Your task to perform on an android device: change alarm snooze length Image 0: 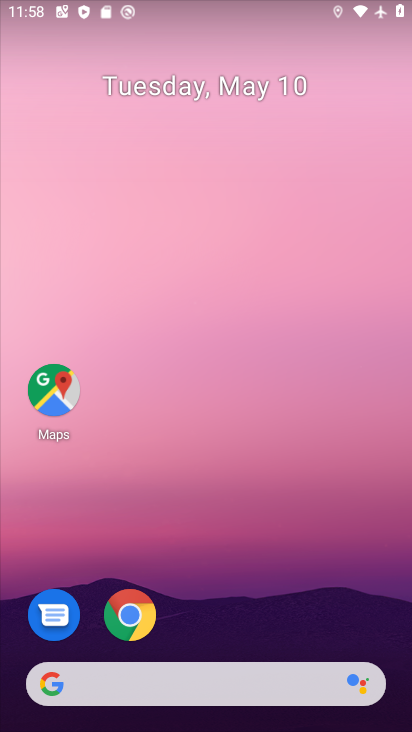
Step 0: drag from (229, 543) to (193, 11)
Your task to perform on an android device: change alarm snooze length Image 1: 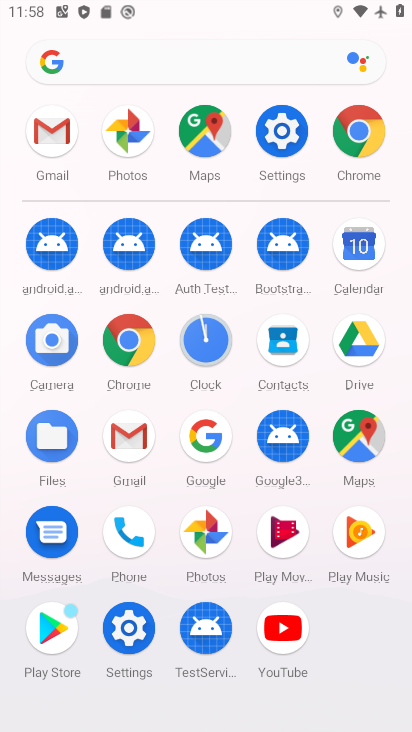
Step 1: drag from (6, 509) to (10, 307)
Your task to perform on an android device: change alarm snooze length Image 2: 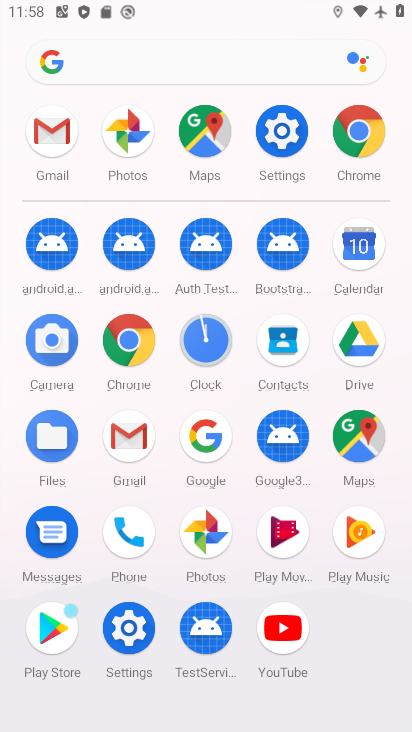
Step 2: click (206, 335)
Your task to perform on an android device: change alarm snooze length Image 3: 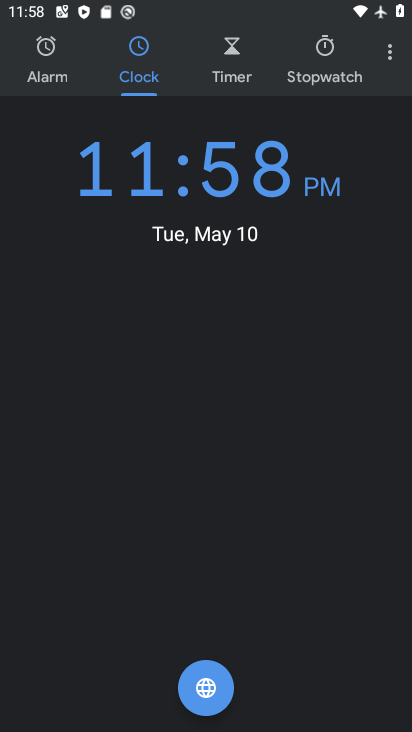
Step 3: drag from (391, 53) to (335, 109)
Your task to perform on an android device: change alarm snooze length Image 4: 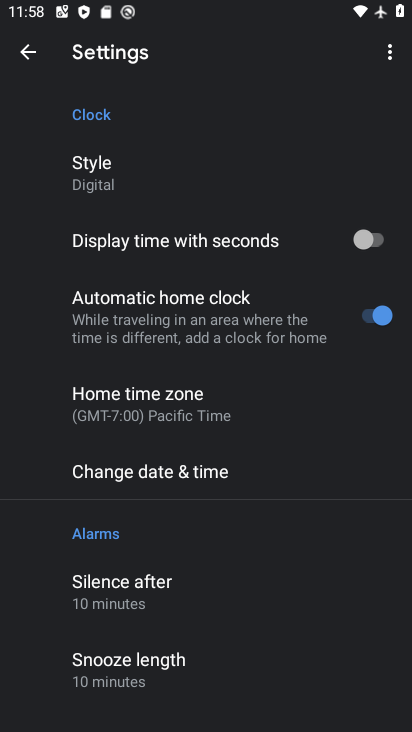
Step 4: drag from (250, 465) to (254, 241)
Your task to perform on an android device: change alarm snooze length Image 5: 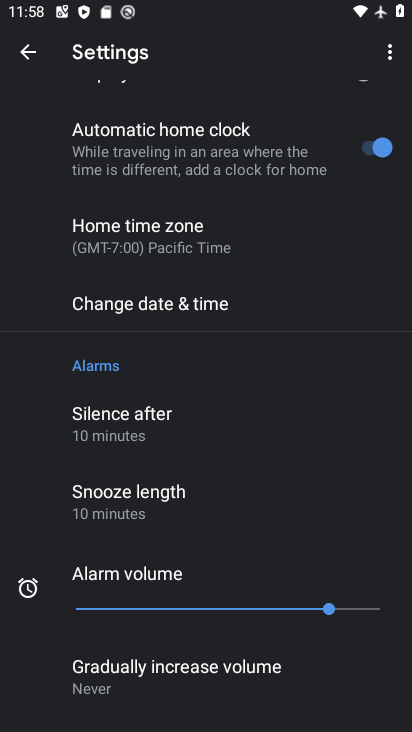
Step 5: click (203, 505)
Your task to perform on an android device: change alarm snooze length Image 6: 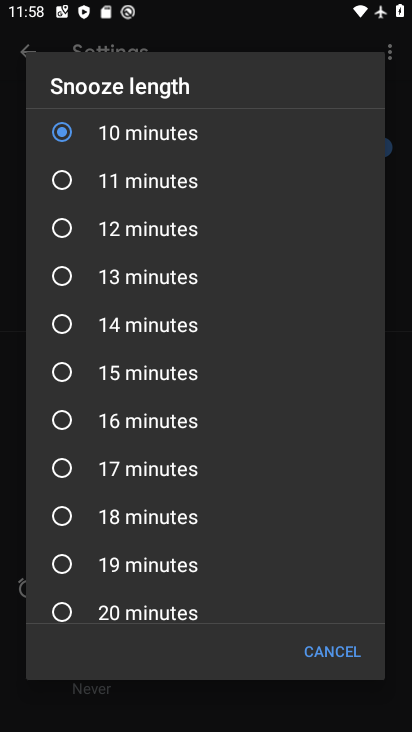
Step 6: click (129, 189)
Your task to perform on an android device: change alarm snooze length Image 7: 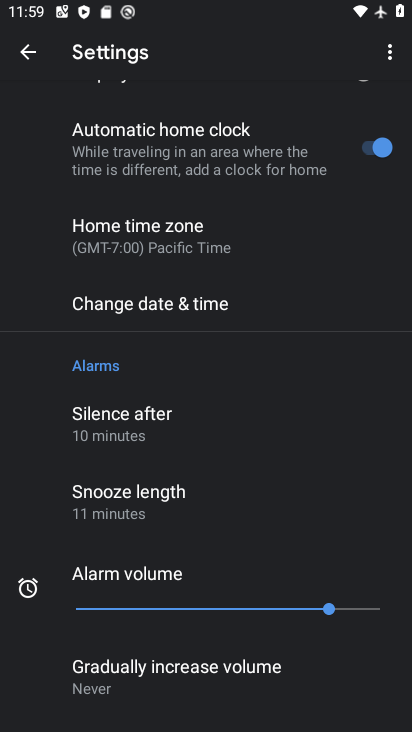
Step 7: task complete